Your task to perform on an android device: Open my contact list Image 0: 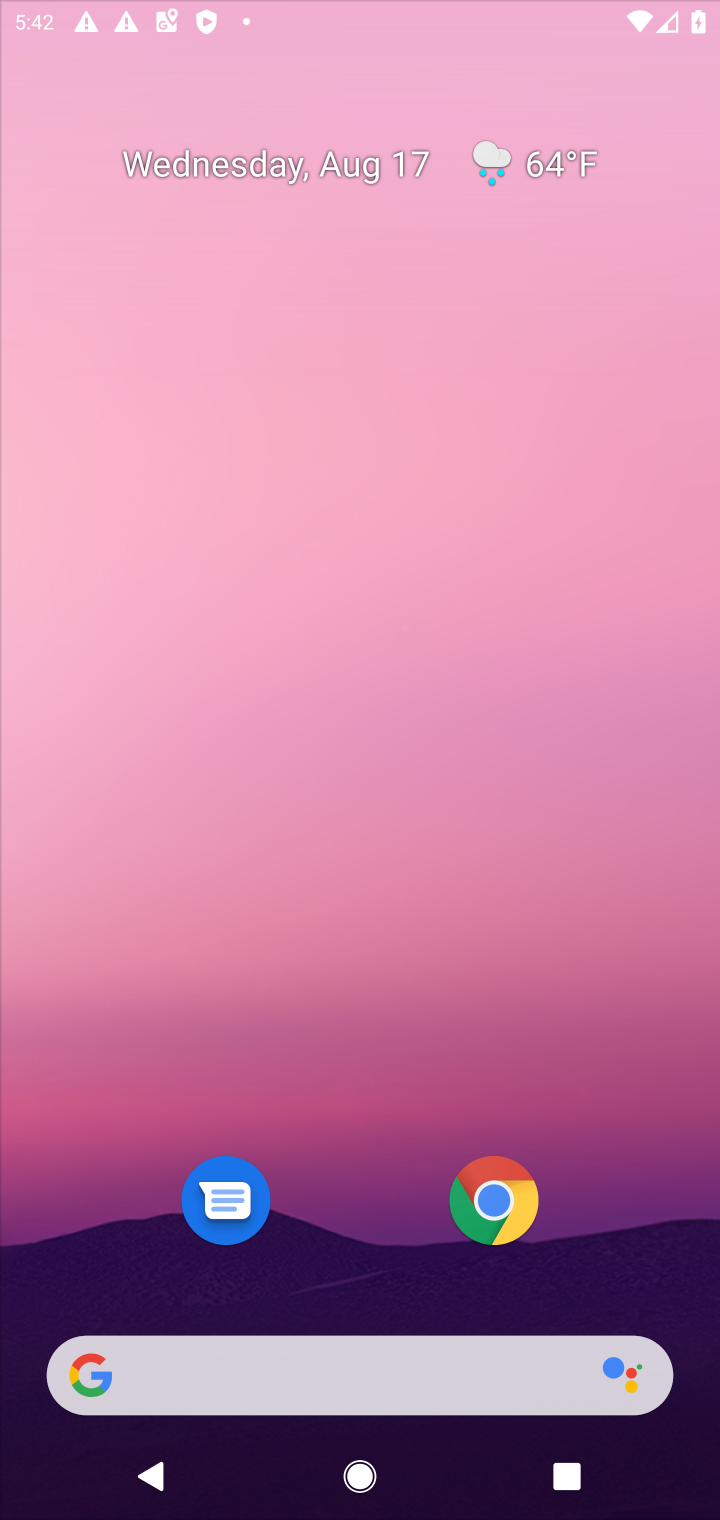
Step 0: press home button
Your task to perform on an android device: Open my contact list Image 1: 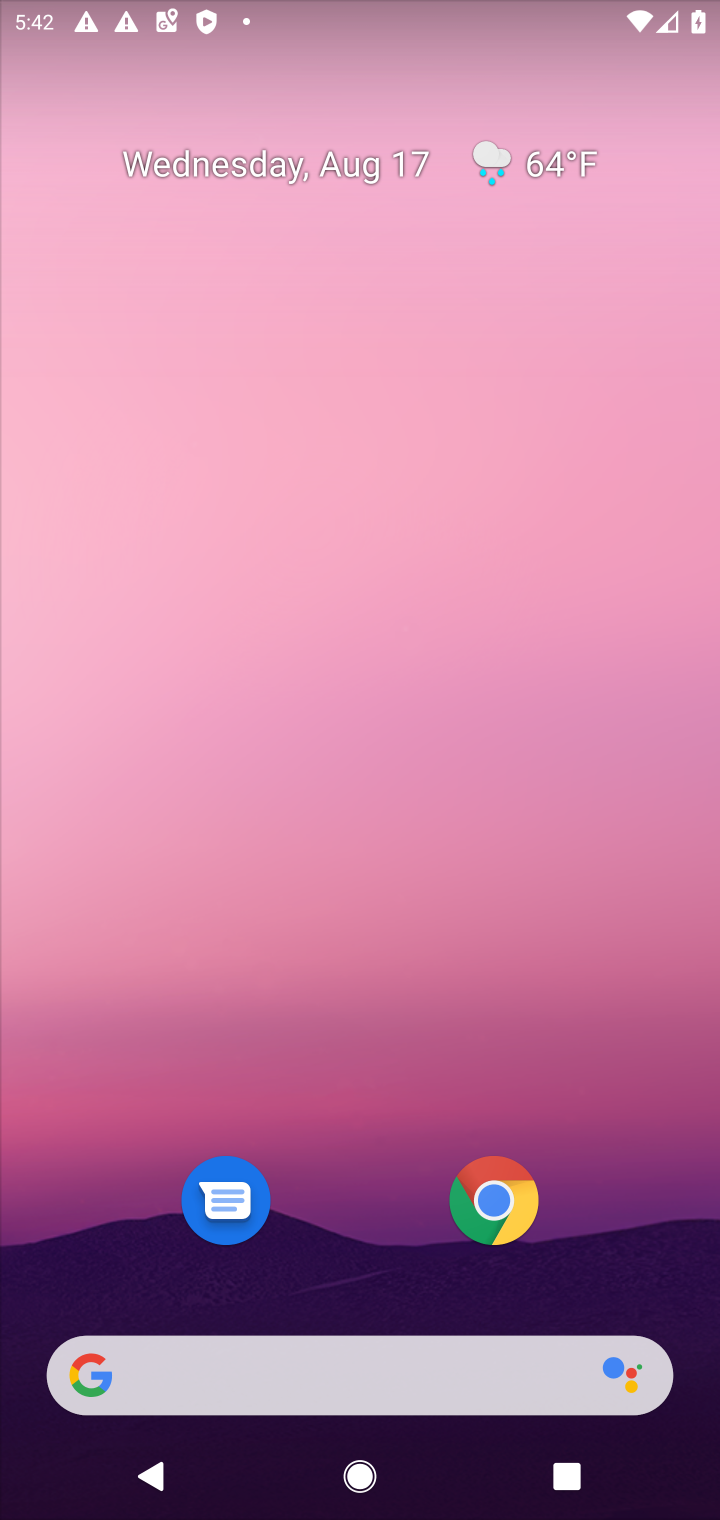
Step 1: drag from (367, 1272) to (310, 119)
Your task to perform on an android device: Open my contact list Image 2: 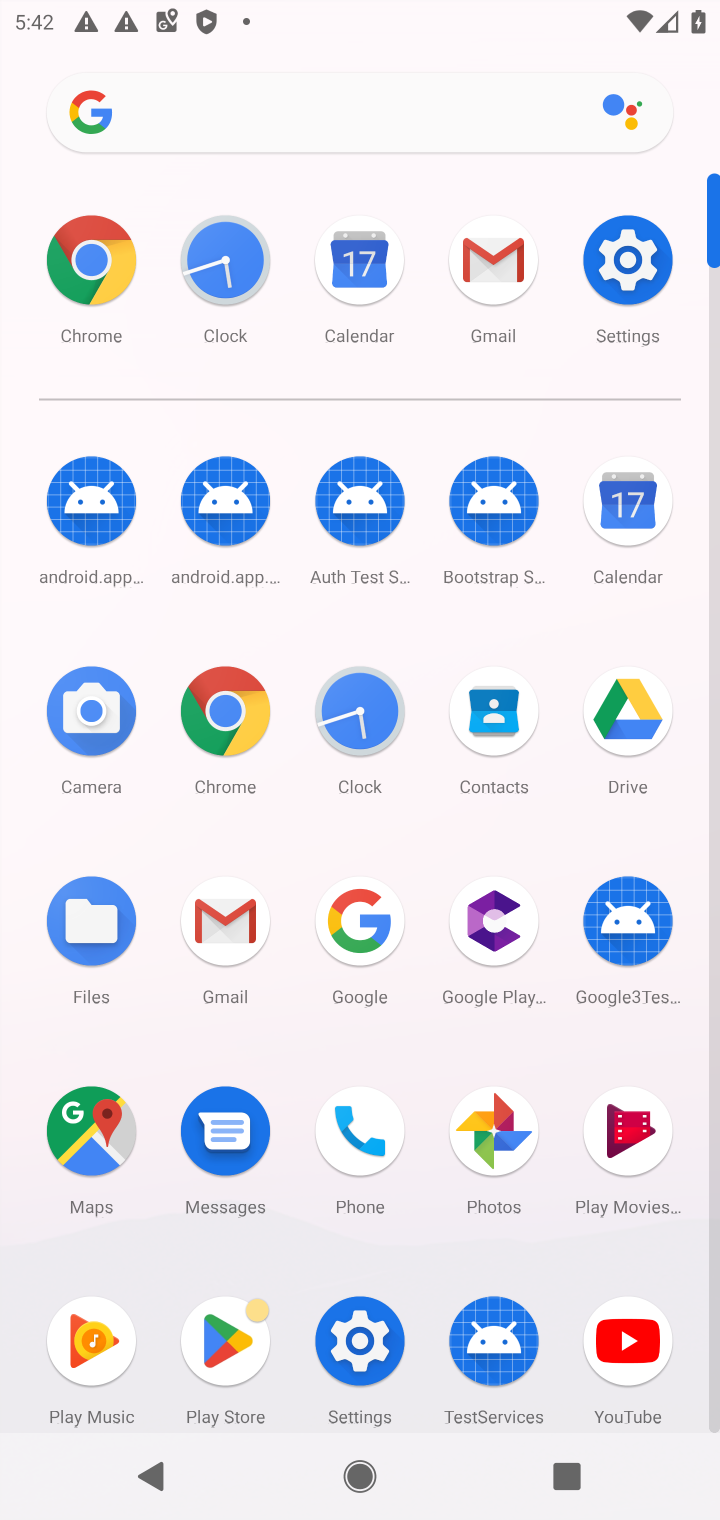
Step 2: click (487, 701)
Your task to perform on an android device: Open my contact list Image 3: 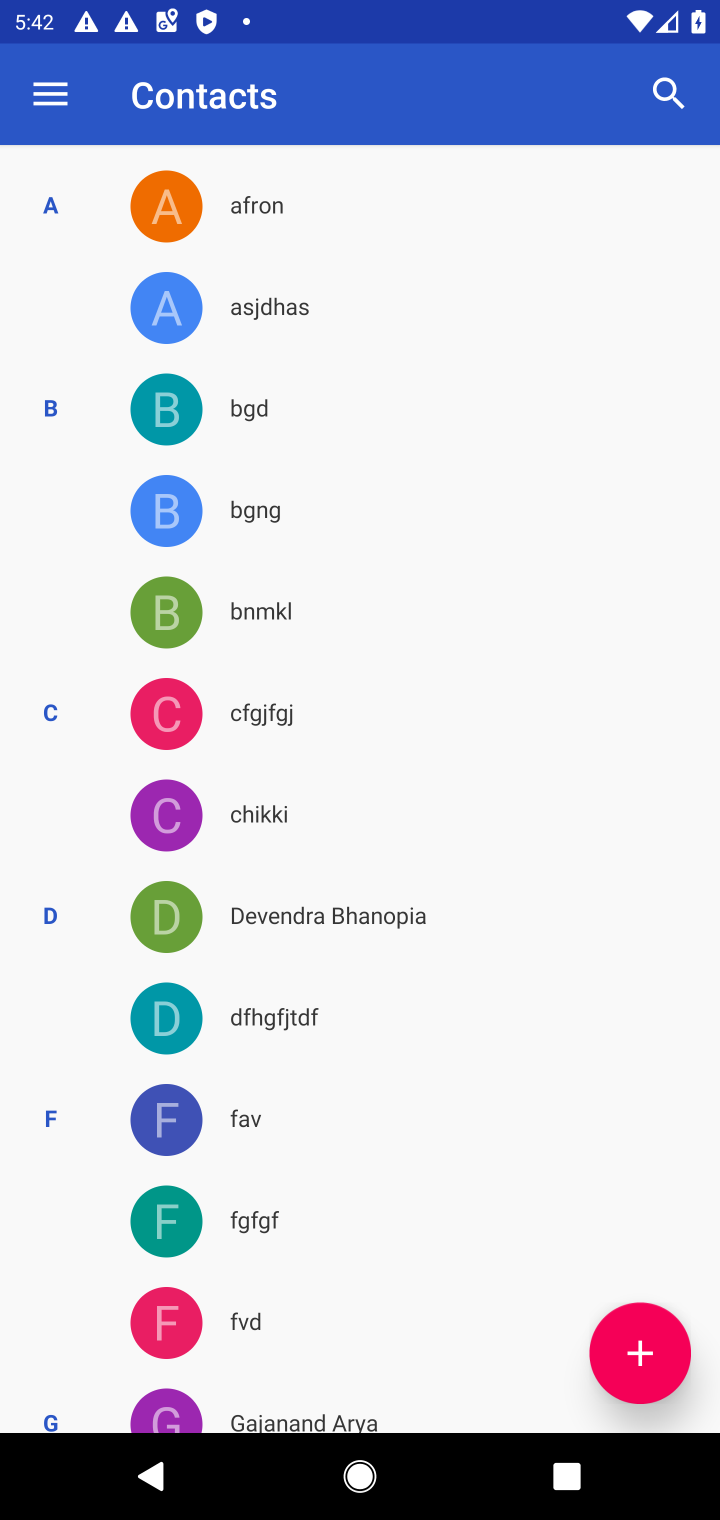
Step 3: task complete